Your task to perform on an android device: Open the web browser Image 0: 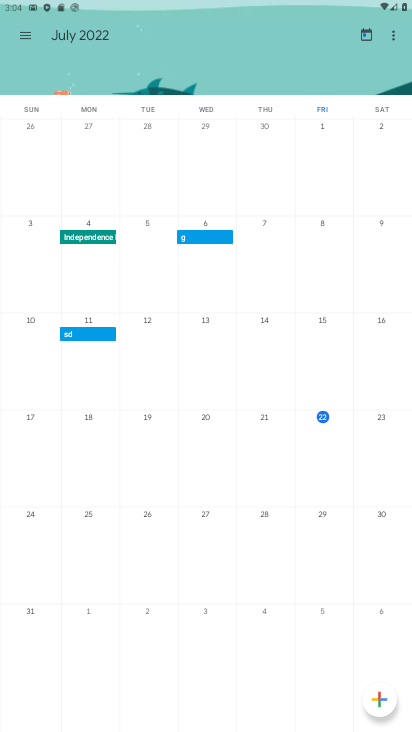
Step 0: press home button
Your task to perform on an android device: Open the web browser Image 1: 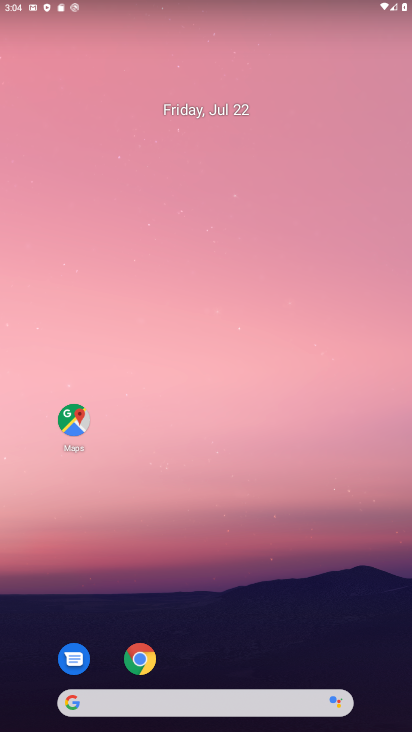
Step 1: click (150, 669)
Your task to perform on an android device: Open the web browser Image 2: 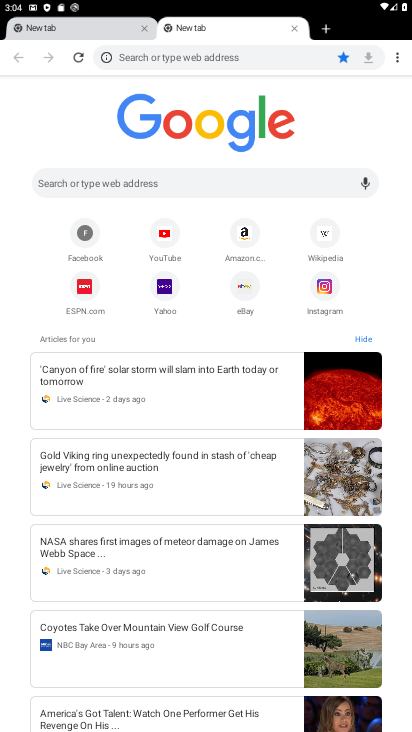
Step 2: task complete